Your task to perform on an android device: Show me productivity apps on the Play Store Image 0: 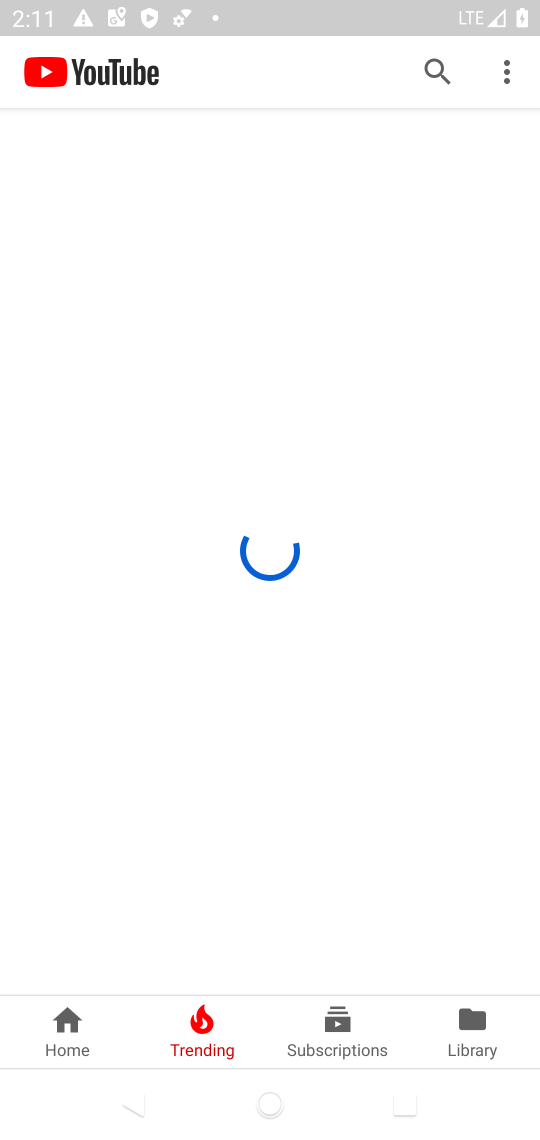
Step 0: press home button
Your task to perform on an android device: Show me productivity apps on the Play Store Image 1: 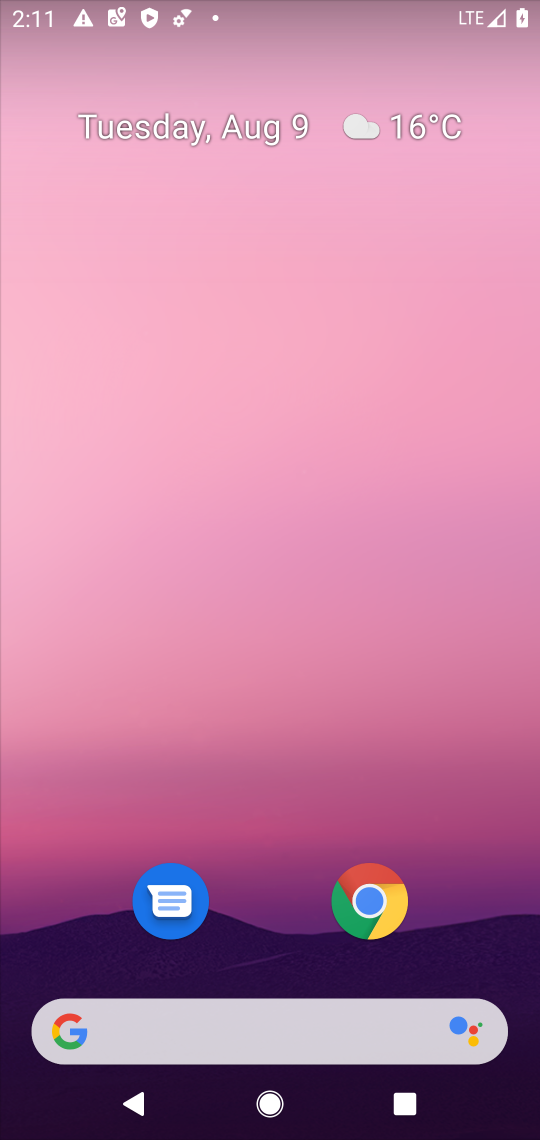
Step 1: drag from (501, 902) to (445, 188)
Your task to perform on an android device: Show me productivity apps on the Play Store Image 2: 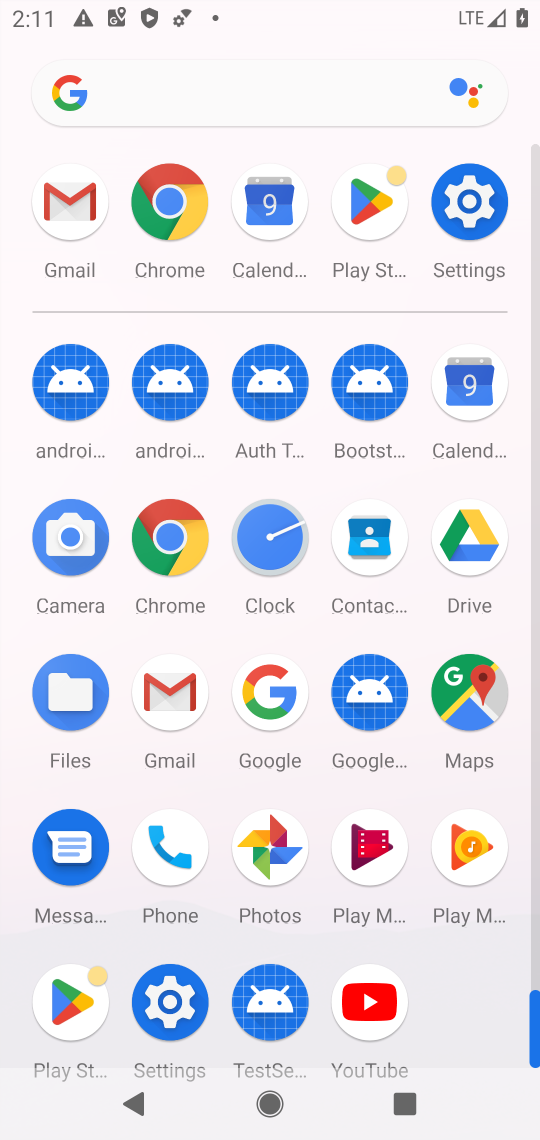
Step 2: click (73, 1005)
Your task to perform on an android device: Show me productivity apps on the Play Store Image 3: 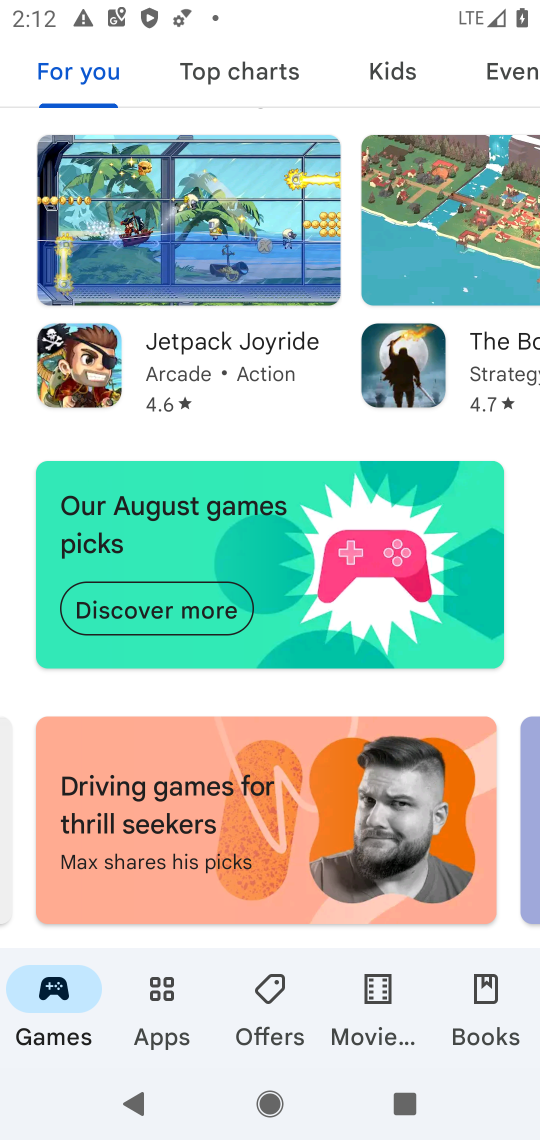
Step 3: click (174, 994)
Your task to perform on an android device: Show me productivity apps on the Play Store Image 4: 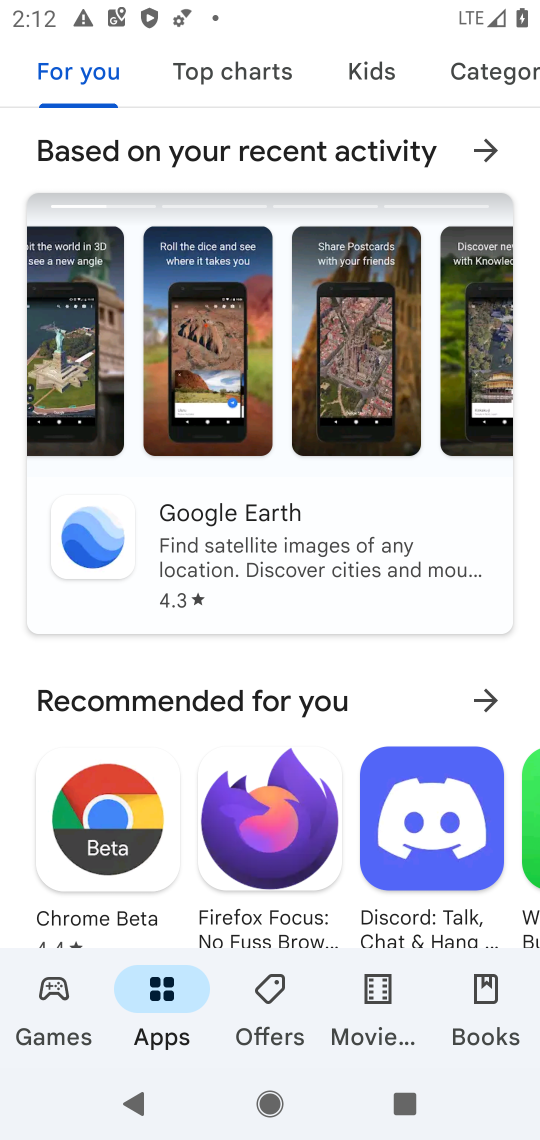
Step 4: click (478, 59)
Your task to perform on an android device: Show me productivity apps on the Play Store Image 5: 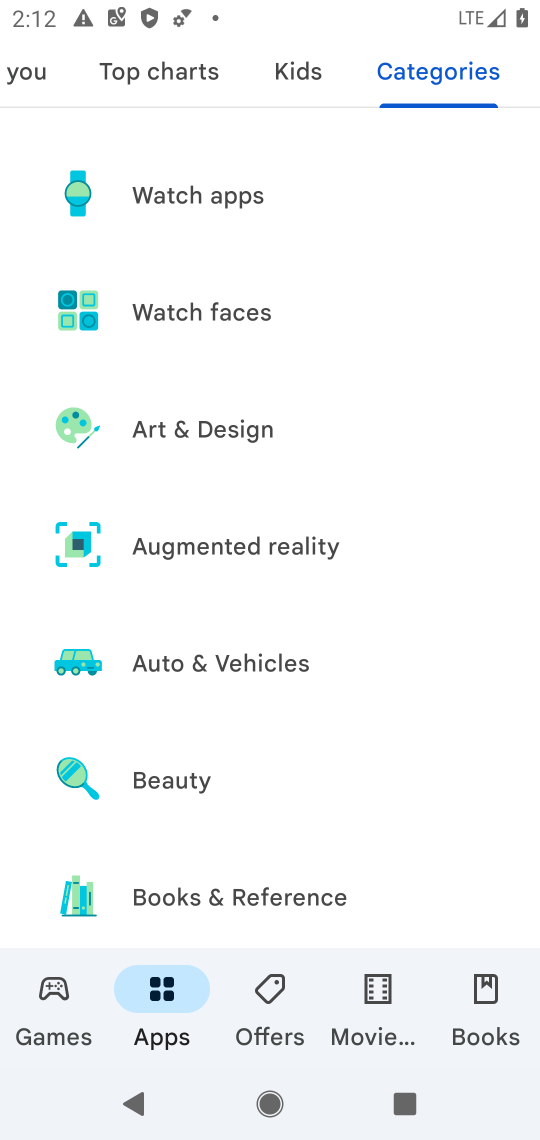
Step 5: drag from (379, 841) to (402, 213)
Your task to perform on an android device: Show me productivity apps on the Play Store Image 6: 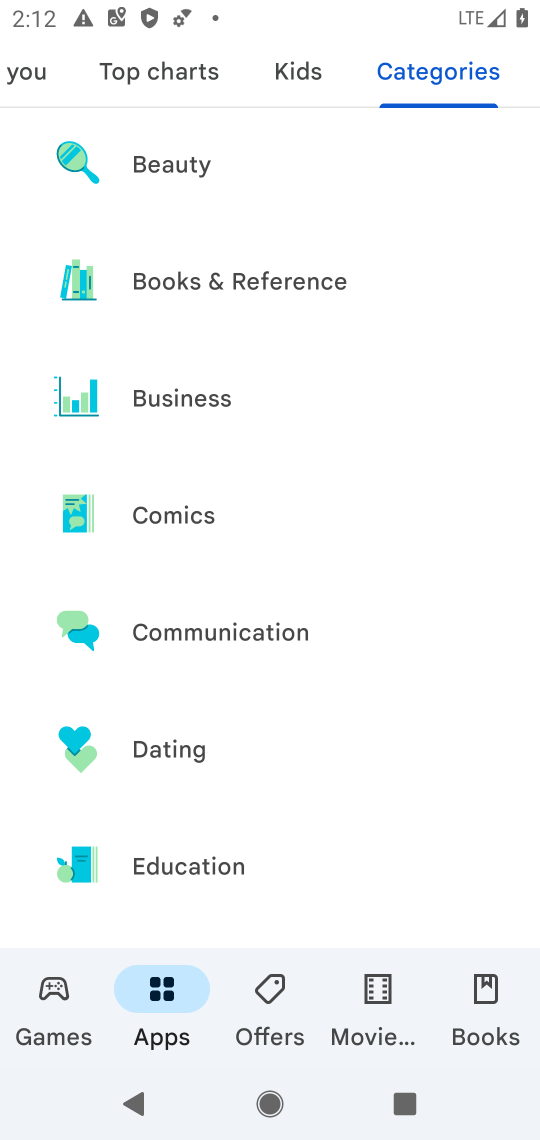
Step 6: drag from (344, 869) to (352, 269)
Your task to perform on an android device: Show me productivity apps on the Play Store Image 7: 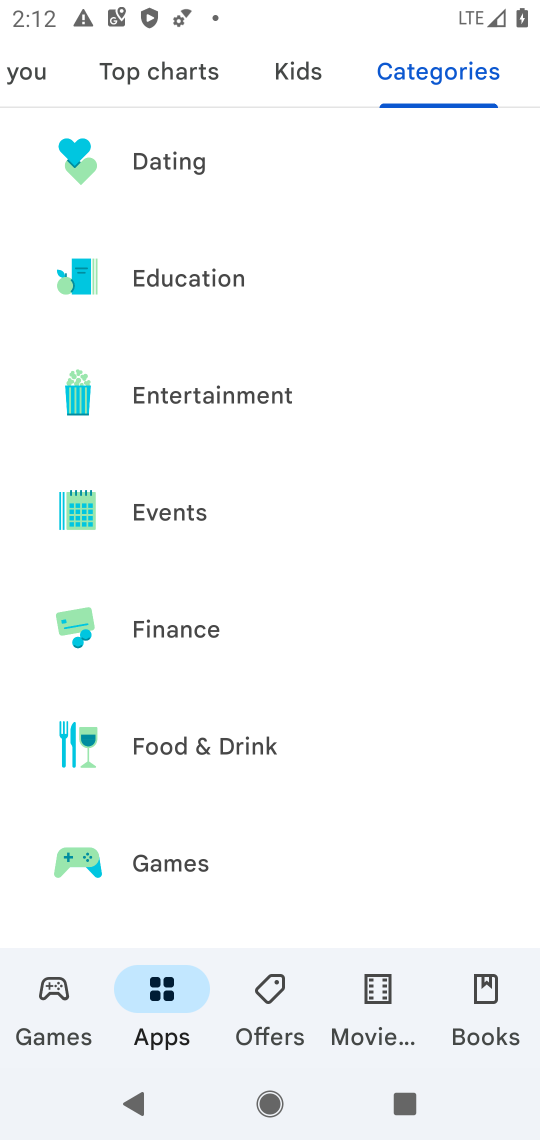
Step 7: drag from (317, 893) to (389, 85)
Your task to perform on an android device: Show me productivity apps on the Play Store Image 8: 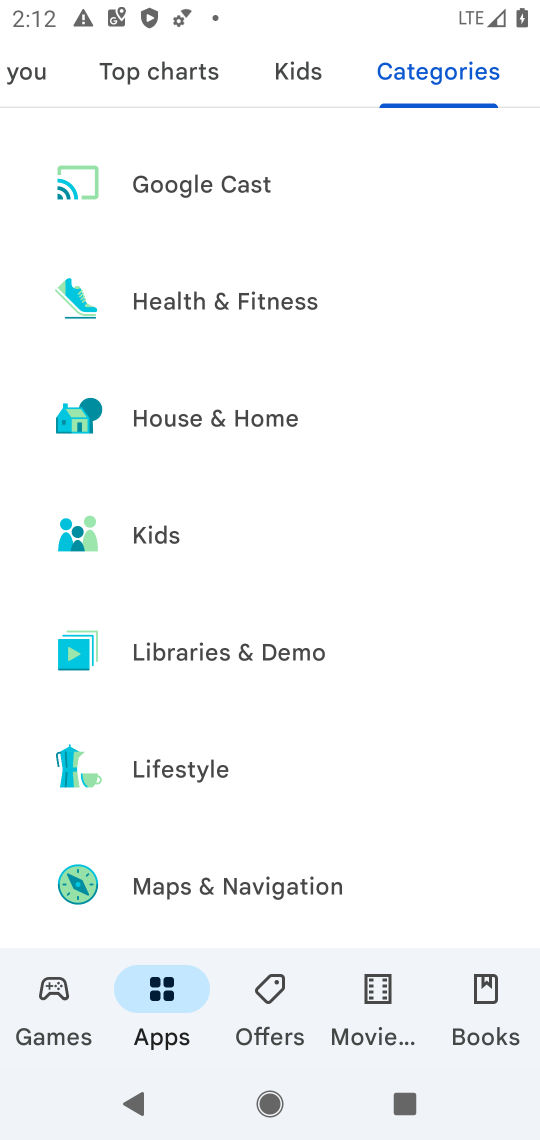
Step 8: drag from (353, 843) to (381, 128)
Your task to perform on an android device: Show me productivity apps on the Play Store Image 9: 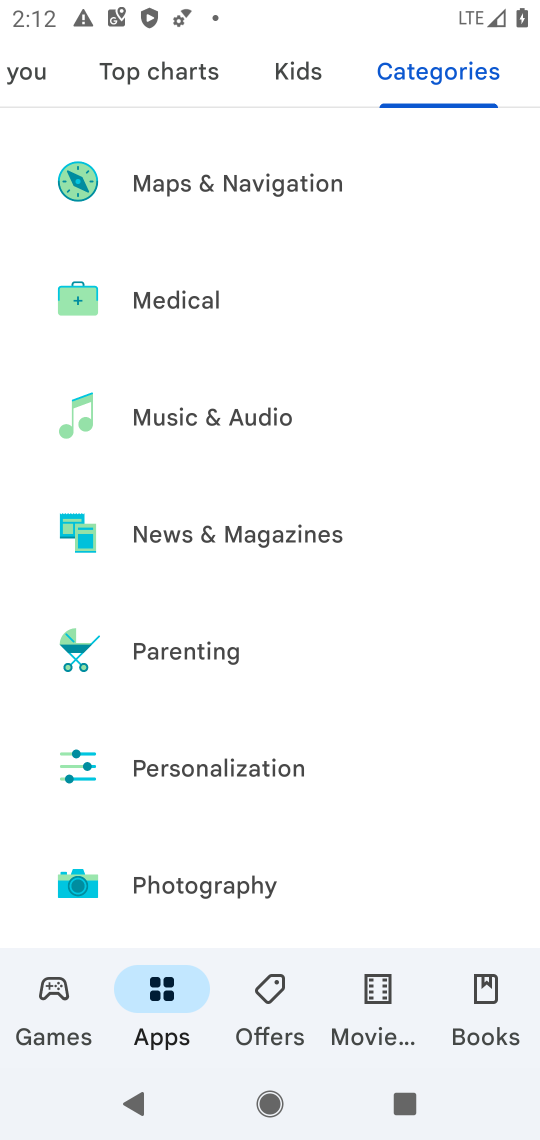
Step 9: drag from (363, 845) to (391, 425)
Your task to perform on an android device: Show me productivity apps on the Play Store Image 10: 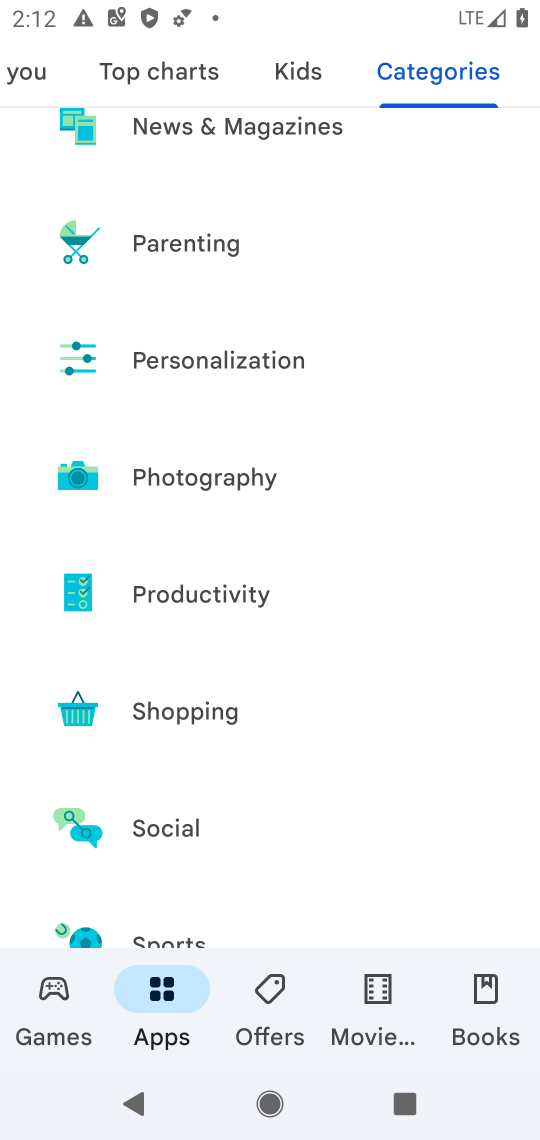
Step 10: click (178, 597)
Your task to perform on an android device: Show me productivity apps on the Play Store Image 11: 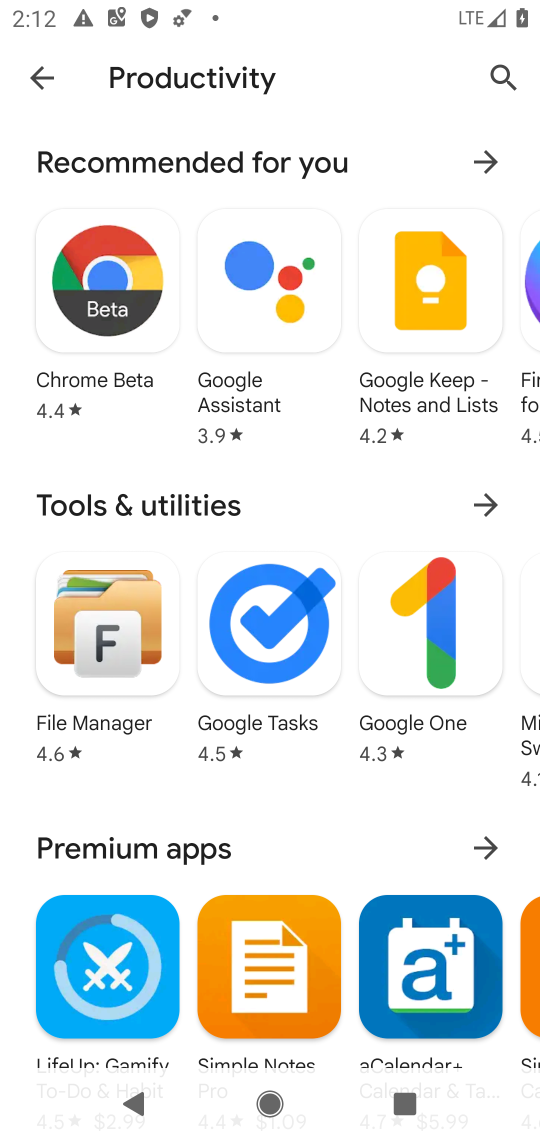
Step 11: drag from (340, 782) to (366, 212)
Your task to perform on an android device: Show me productivity apps on the Play Store Image 12: 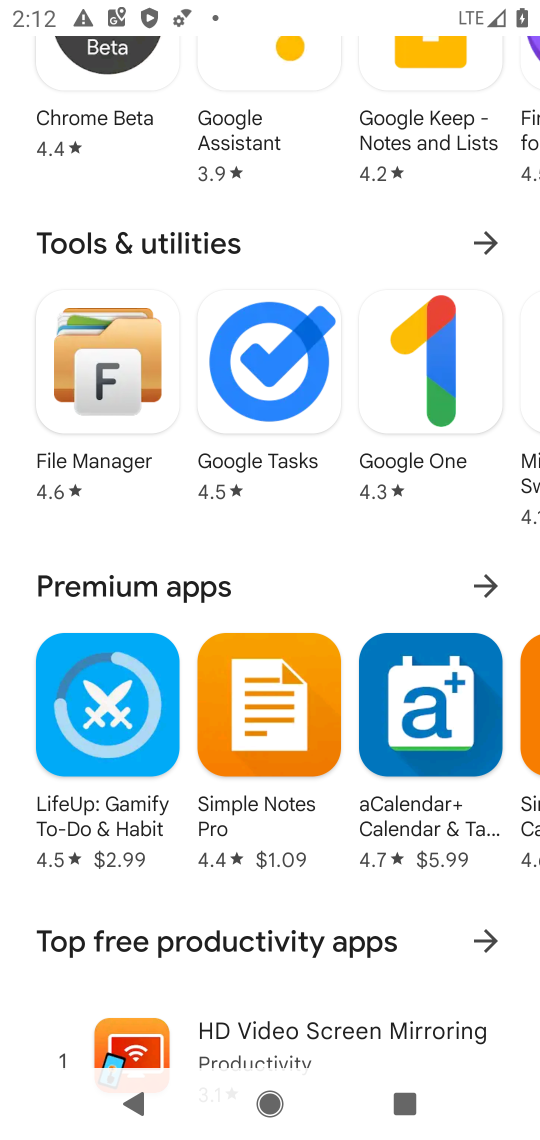
Step 12: drag from (344, 607) to (312, 85)
Your task to perform on an android device: Show me productivity apps on the Play Store Image 13: 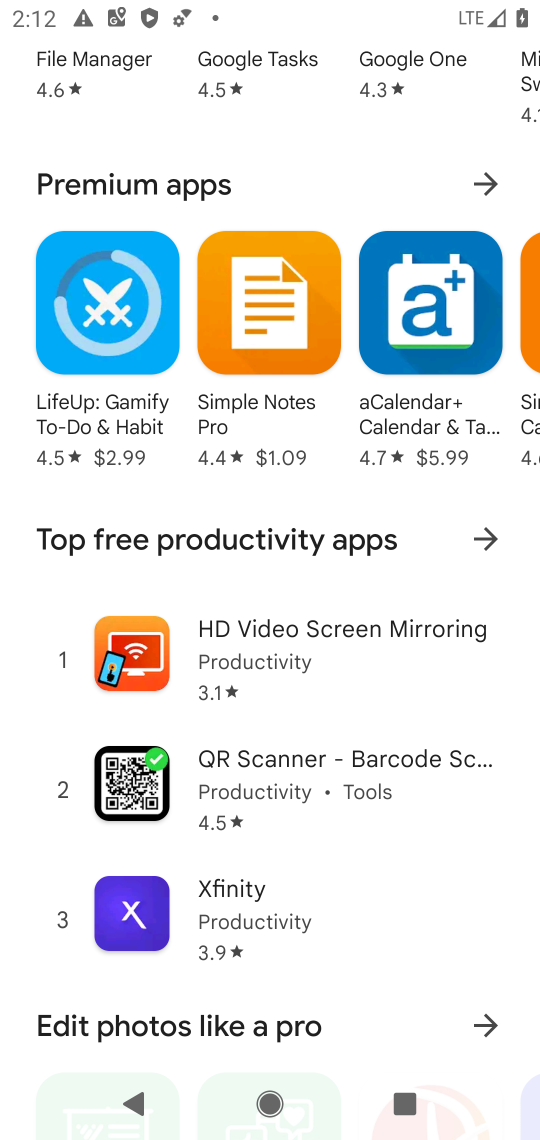
Step 13: drag from (316, 988) to (294, 310)
Your task to perform on an android device: Show me productivity apps on the Play Store Image 14: 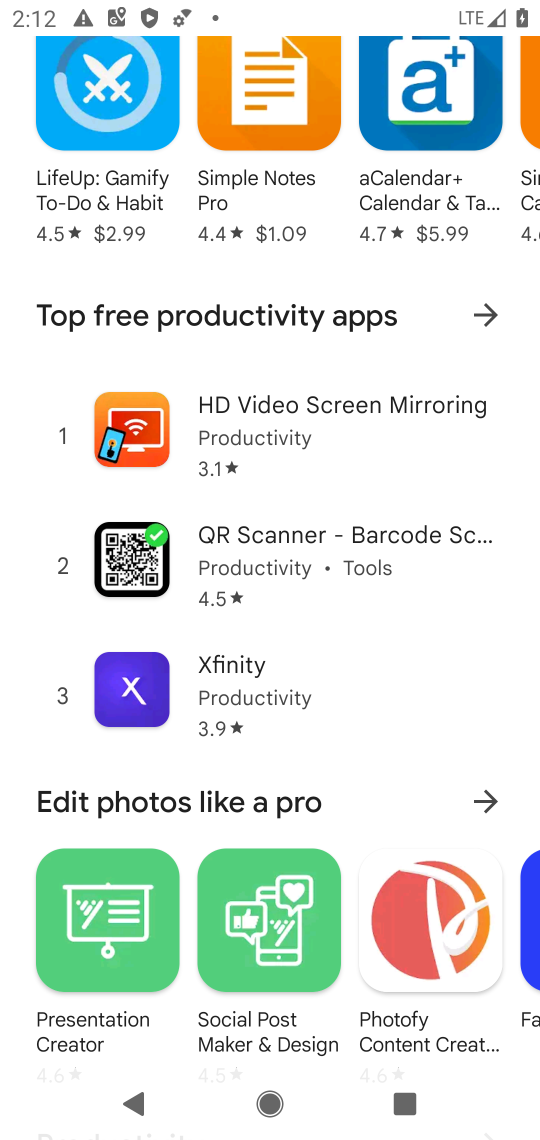
Step 14: drag from (346, 831) to (302, 166)
Your task to perform on an android device: Show me productivity apps on the Play Store Image 15: 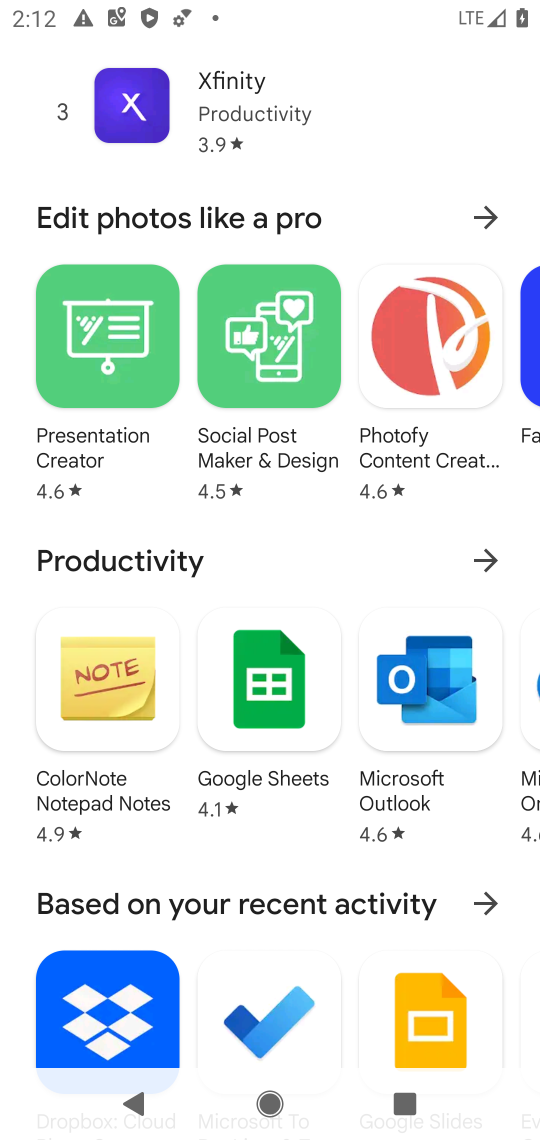
Step 15: click (491, 554)
Your task to perform on an android device: Show me productivity apps on the Play Store Image 16: 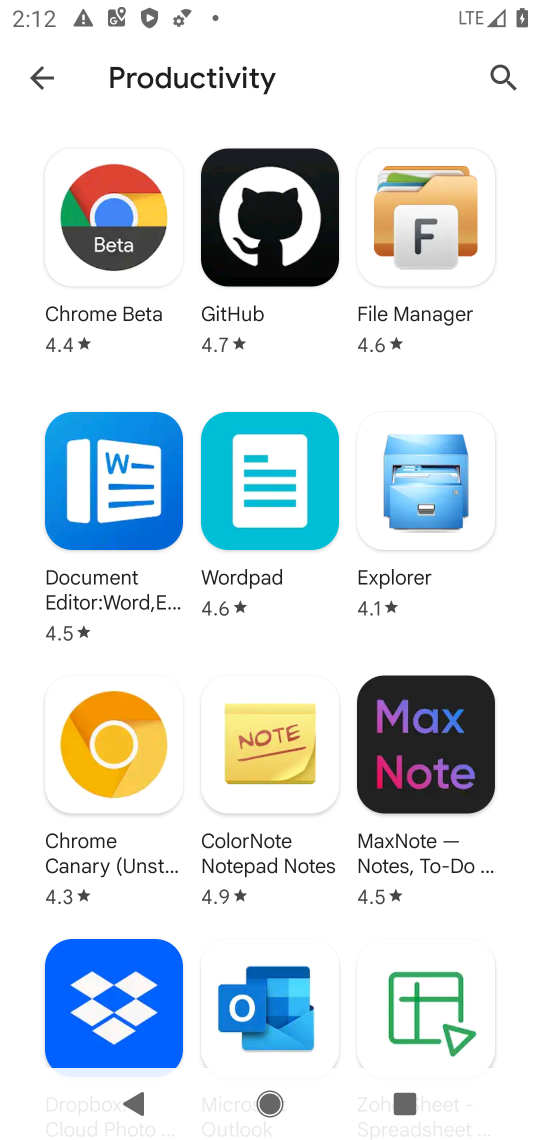
Step 16: task complete